Your task to perform on an android device: open chrome and create a bookmark for the current page Image 0: 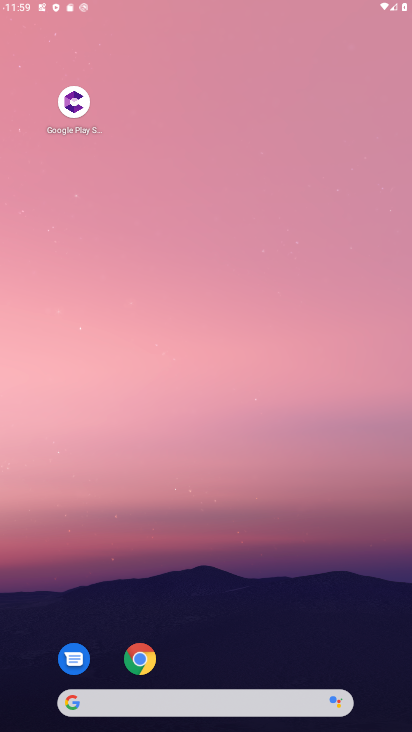
Step 0: drag from (193, 668) to (292, 48)
Your task to perform on an android device: open chrome and create a bookmark for the current page Image 1: 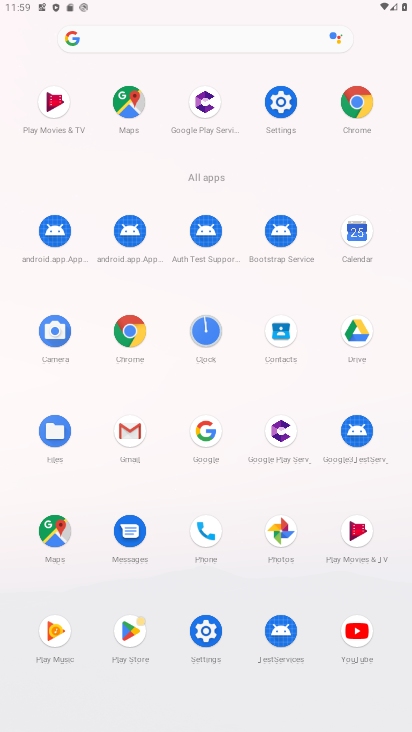
Step 1: click (125, 328)
Your task to perform on an android device: open chrome and create a bookmark for the current page Image 2: 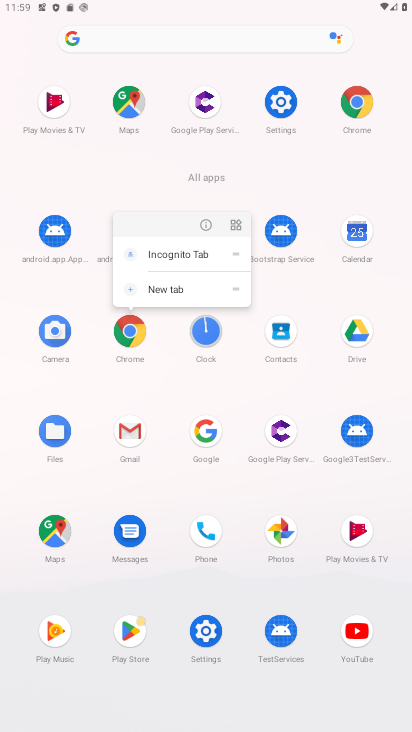
Step 2: click (201, 222)
Your task to perform on an android device: open chrome and create a bookmark for the current page Image 3: 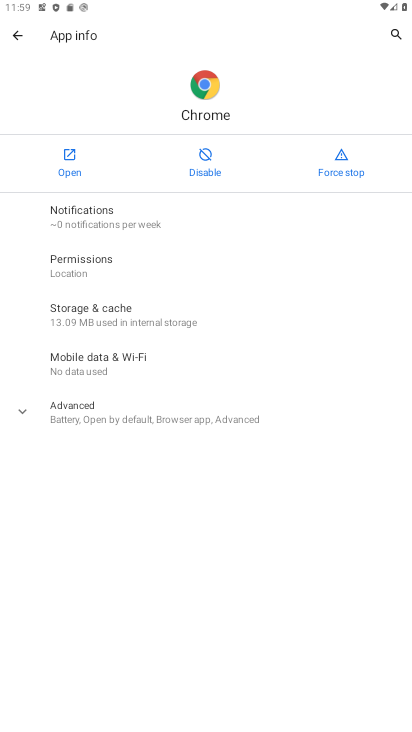
Step 3: click (55, 151)
Your task to perform on an android device: open chrome and create a bookmark for the current page Image 4: 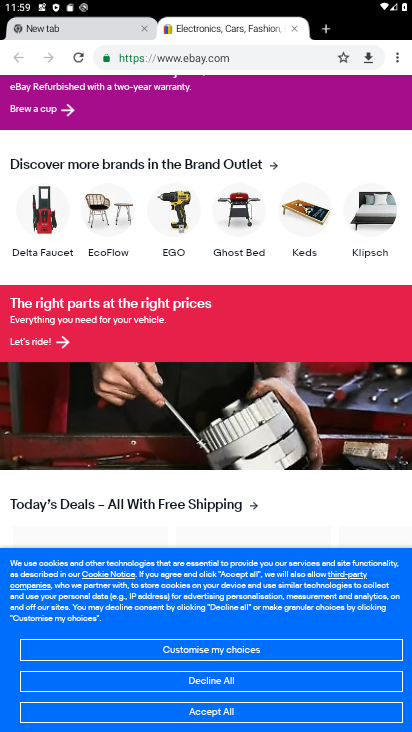
Step 4: click (342, 55)
Your task to perform on an android device: open chrome and create a bookmark for the current page Image 5: 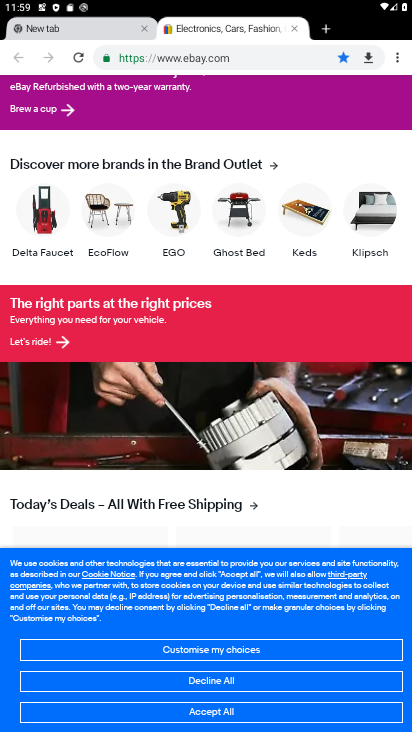
Step 5: task complete